Your task to perform on an android device: Open Chrome and go to settings Image 0: 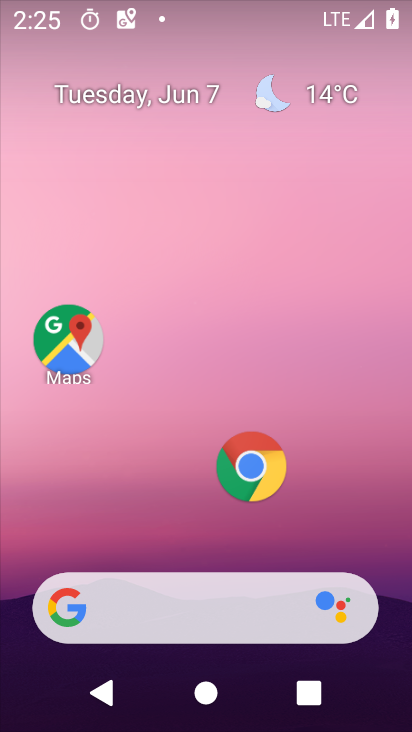
Step 0: click (258, 484)
Your task to perform on an android device: Open Chrome and go to settings Image 1: 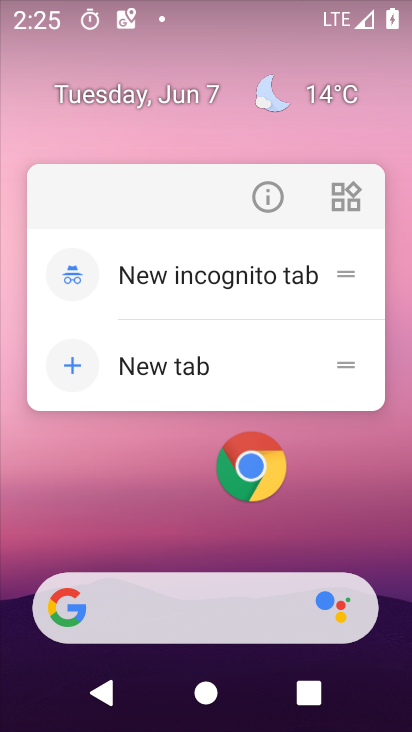
Step 1: click (255, 488)
Your task to perform on an android device: Open Chrome and go to settings Image 2: 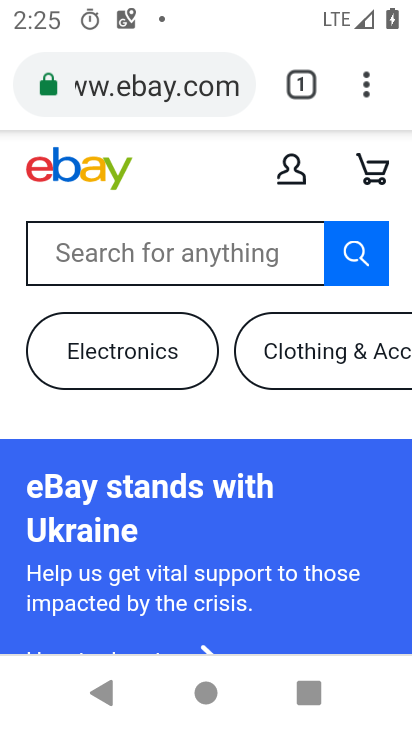
Step 2: click (368, 82)
Your task to perform on an android device: Open Chrome and go to settings Image 3: 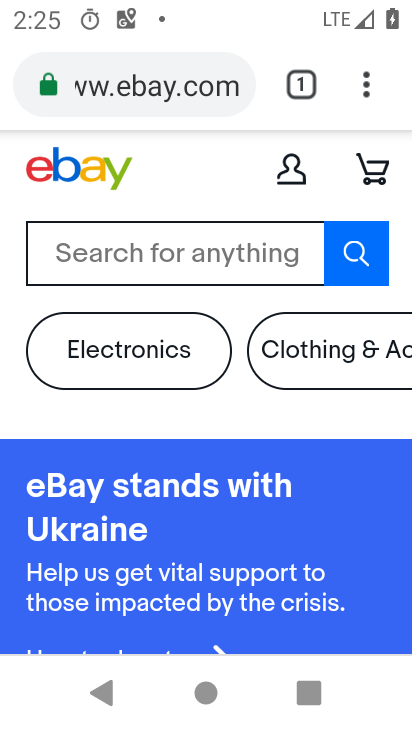
Step 3: click (363, 86)
Your task to perform on an android device: Open Chrome and go to settings Image 4: 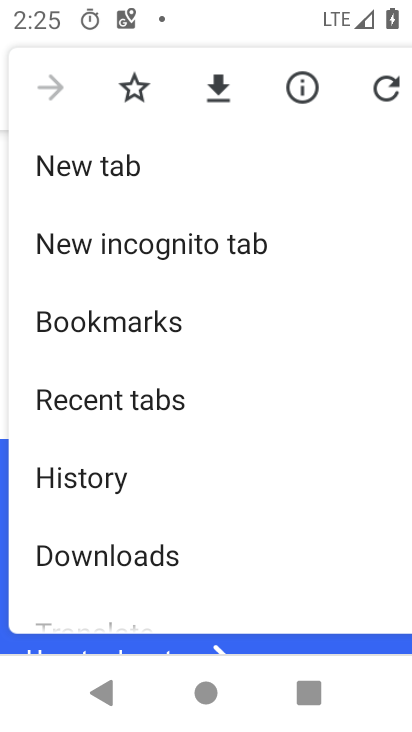
Step 4: drag from (133, 494) to (130, 241)
Your task to perform on an android device: Open Chrome and go to settings Image 5: 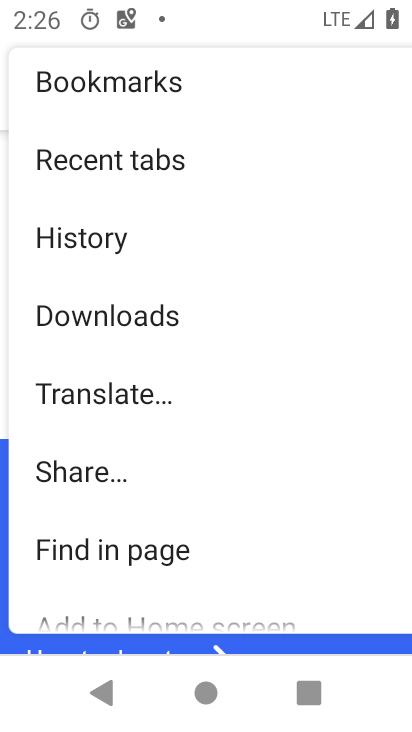
Step 5: drag from (256, 530) to (285, 212)
Your task to perform on an android device: Open Chrome and go to settings Image 6: 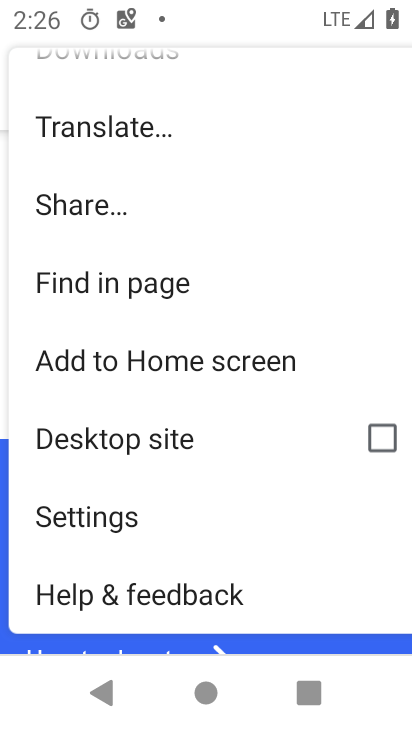
Step 6: click (128, 526)
Your task to perform on an android device: Open Chrome and go to settings Image 7: 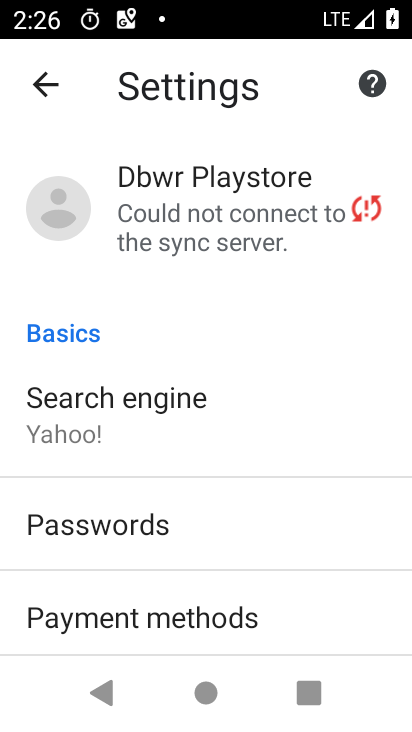
Step 7: task complete